Your task to perform on an android device: Open Google Maps and go to "Timeline" Image 0: 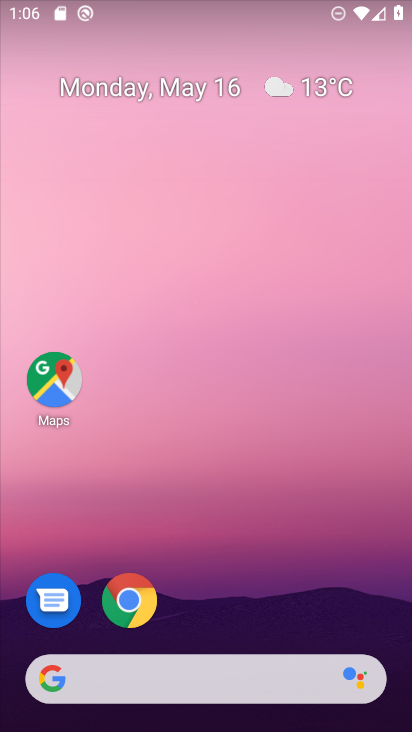
Step 0: click (60, 377)
Your task to perform on an android device: Open Google Maps and go to "Timeline" Image 1: 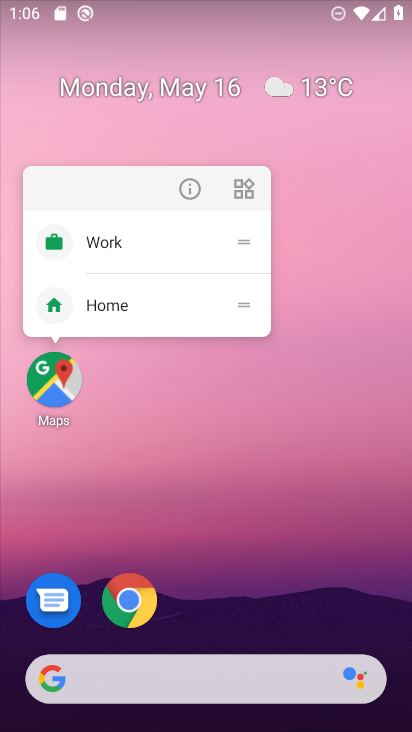
Step 1: click (53, 371)
Your task to perform on an android device: Open Google Maps and go to "Timeline" Image 2: 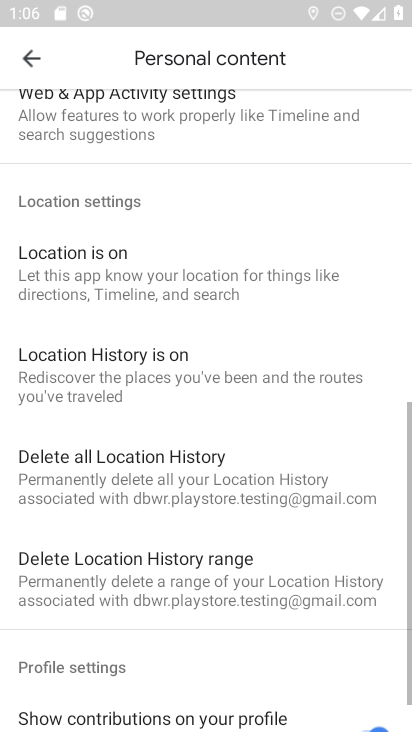
Step 2: click (33, 52)
Your task to perform on an android device: Open Google Maps and go to "Timeline" Image 3: 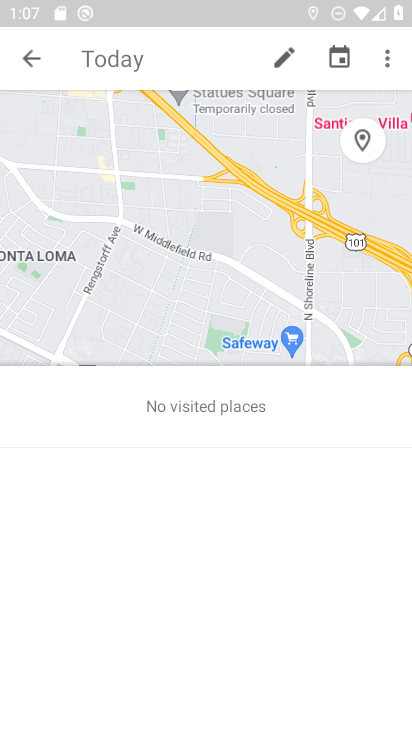
Step 3: task complete